Your task to perform on an android device: Open ESPN.com Image 0: 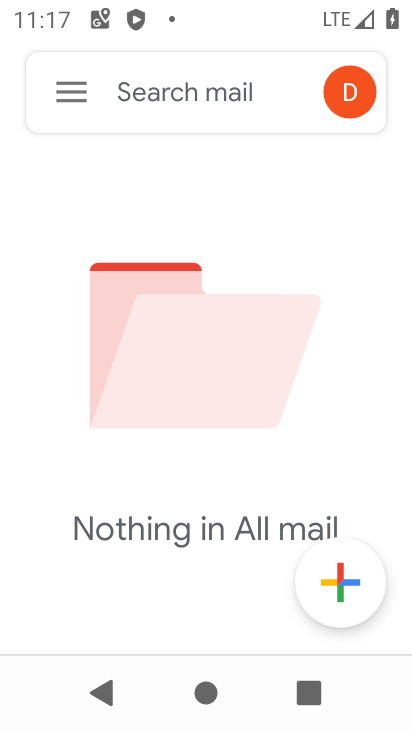
Step 0: press back button
Your task to perform on an android device: Open ESPN.com Image 1: 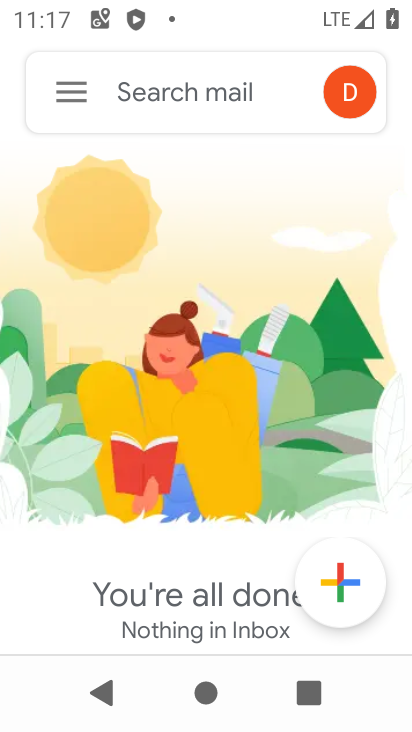
Step 1: press back button
Your task to perform on an android device: Open ESPN.com Image 2: 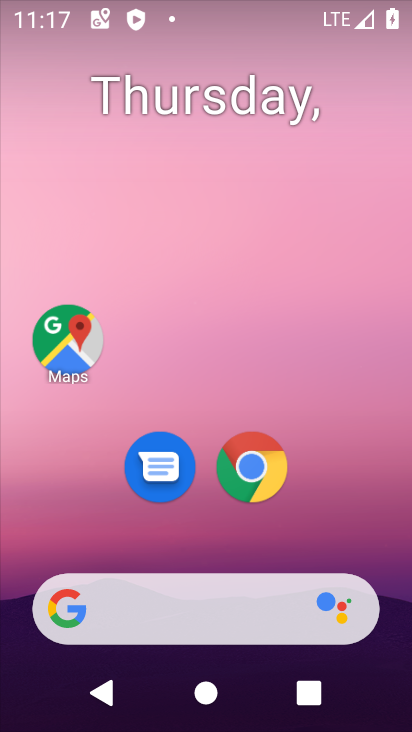
Step 2: click (258, 458)
Your task to perform on an android device: Open ESPN.com Image 3: 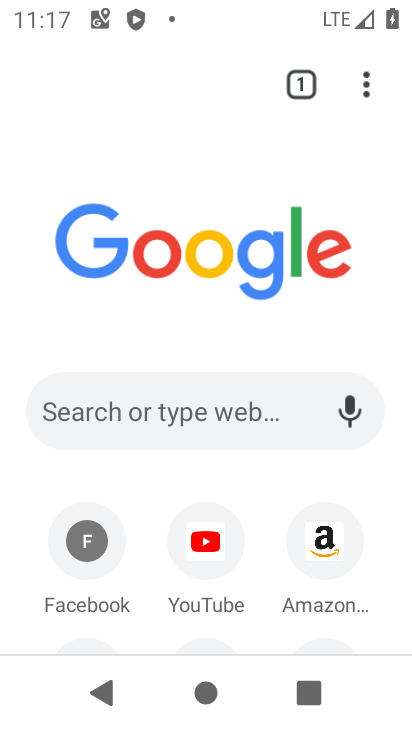
Step 3: drag from (160, 588) to (284, 141)
Your task to perform on an android device: Open ESPN.com Image 4: 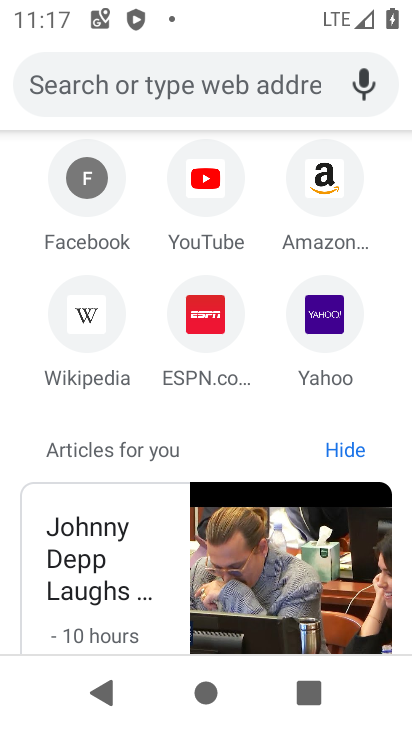
Step 4: click (198, 339)
Your task to perform on an android device: Open ESPN.com Image 5: 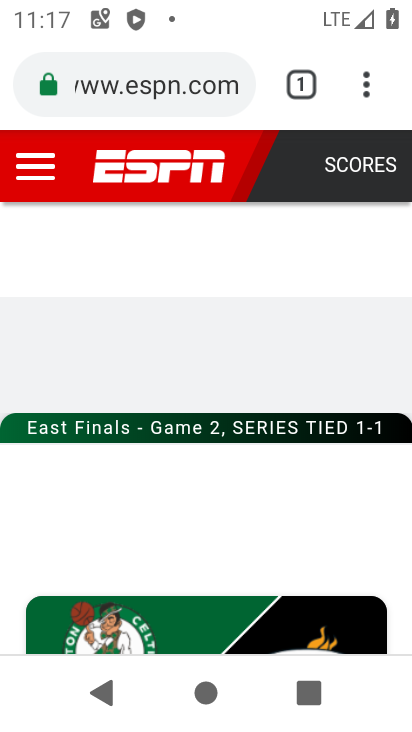
Step 5: task complete